Your task to perform on an android device: Go to settings Image 0: 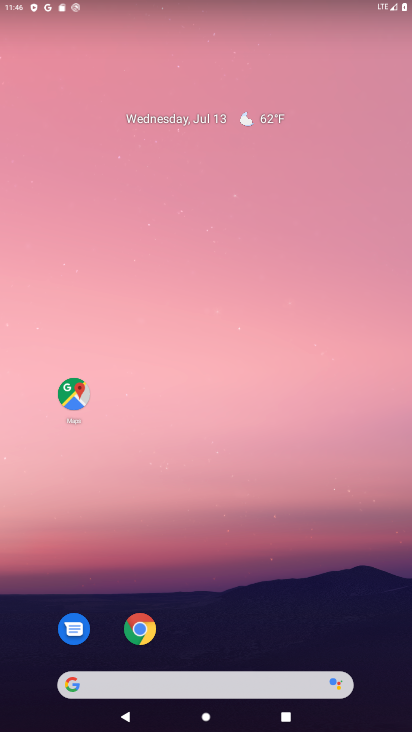
Step 0: drag from (338, 458) to (281, 43)
Your task to perform on an android device: Go to settings Image 1: 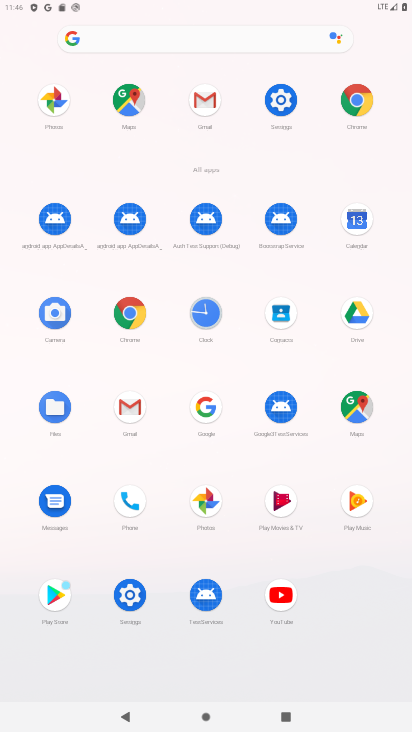
Step 1: click (278, 99)
Your task to perform on an android device: Go to settings Image 2: 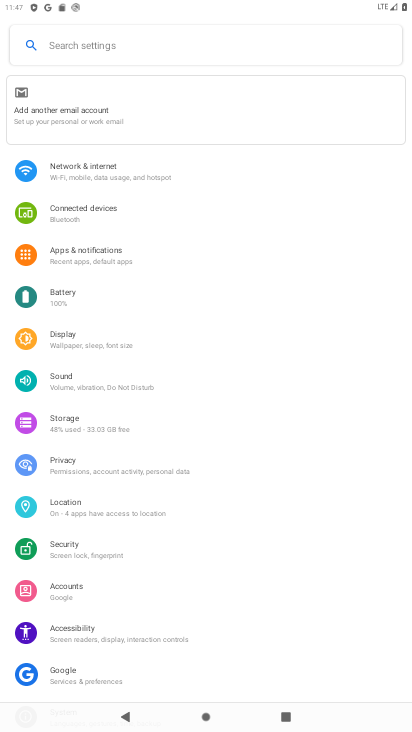
Step 2: task complete